Your task to perform on an android device: snooze an email in the gmail app Image 0: 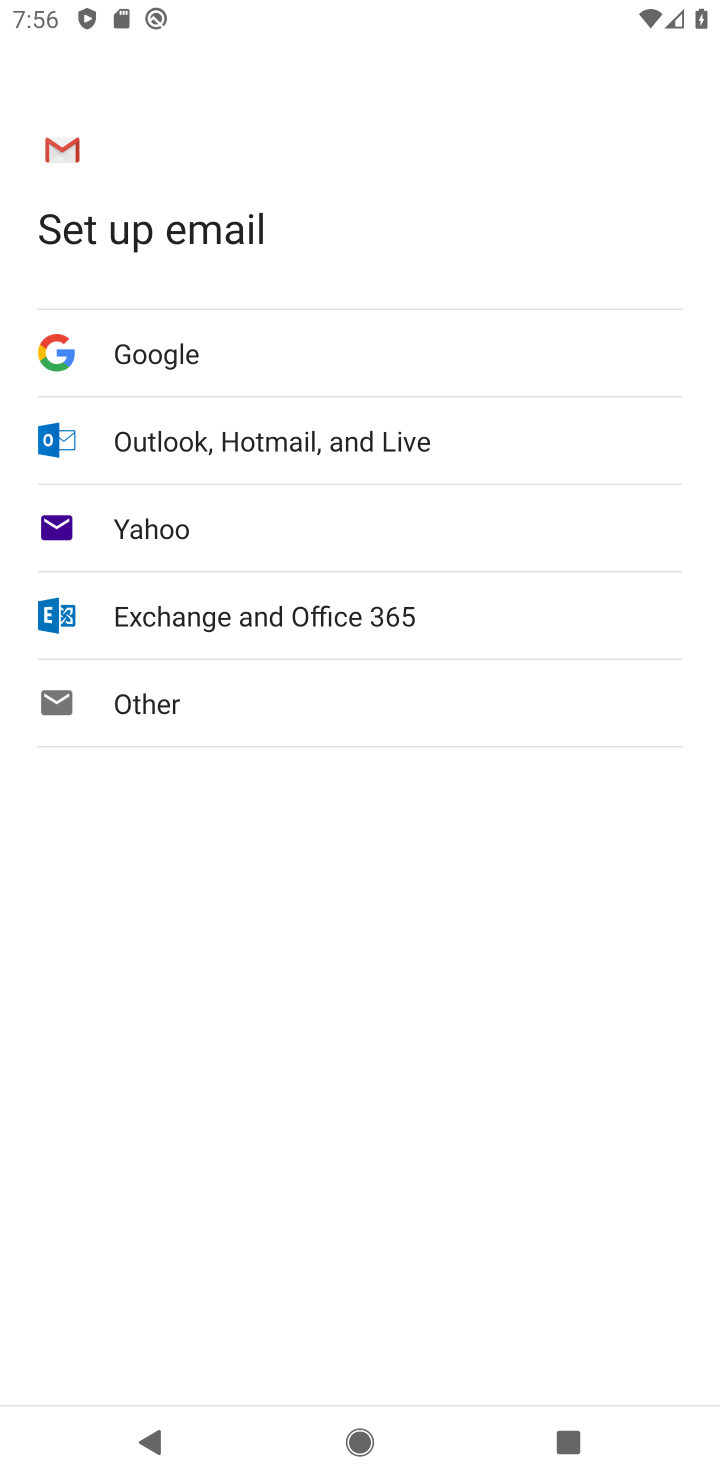
Step 0: press home button
Your task to perform on an android device: snooze an email in the gmail app Image 1: 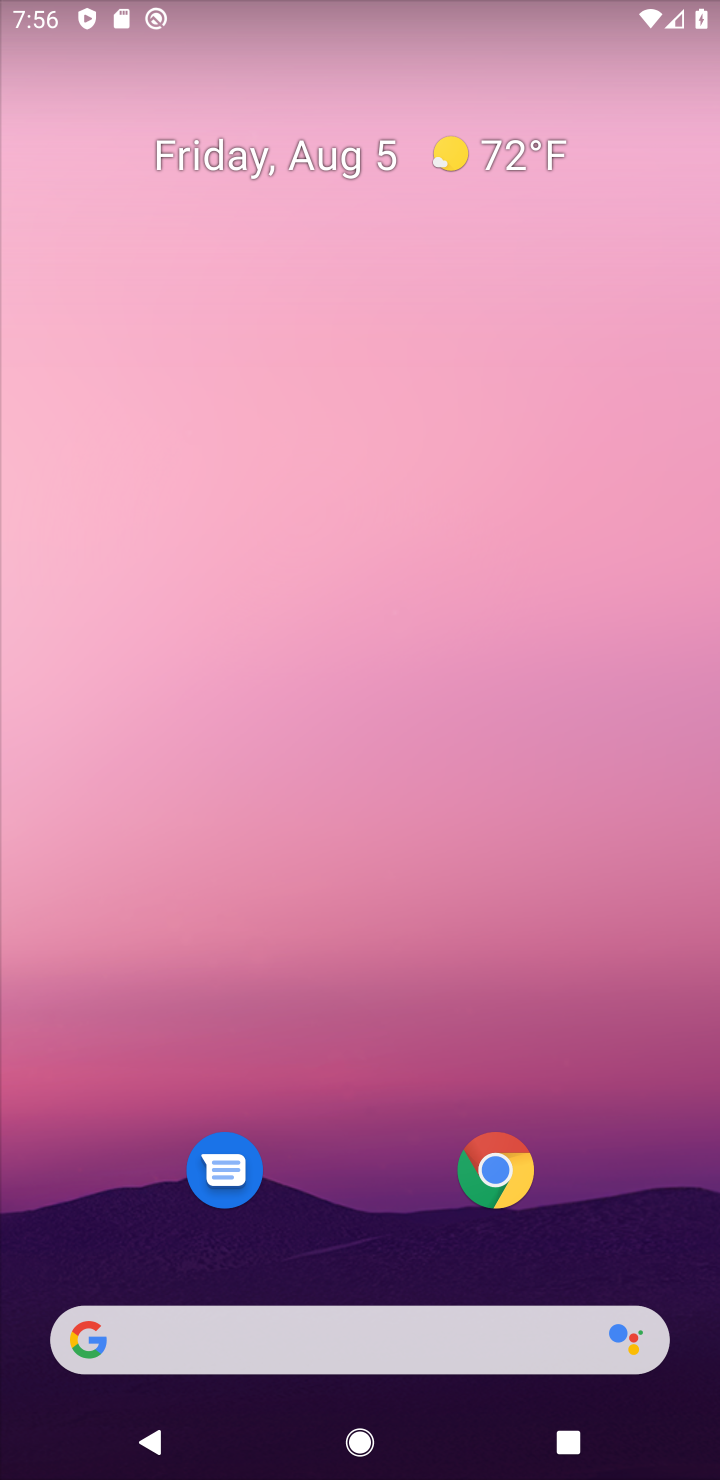
Step 1: click (711, 1042)
Your task to perform on an android device: snooze an email in the gmail app Image 2: 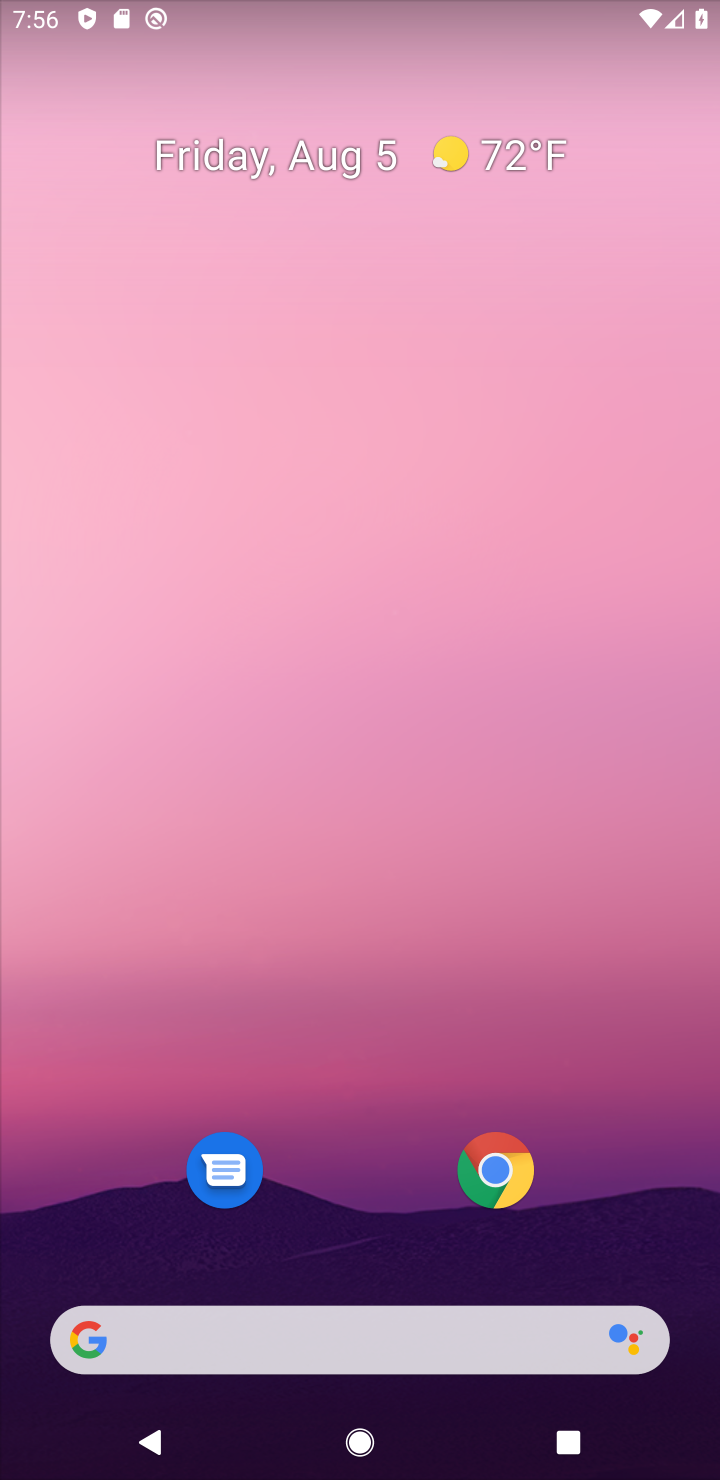
Step 2: drag from (615, 1248) to (569, 274)
Your task to perform on an android device: snooze an email in the gmail app Image 3: 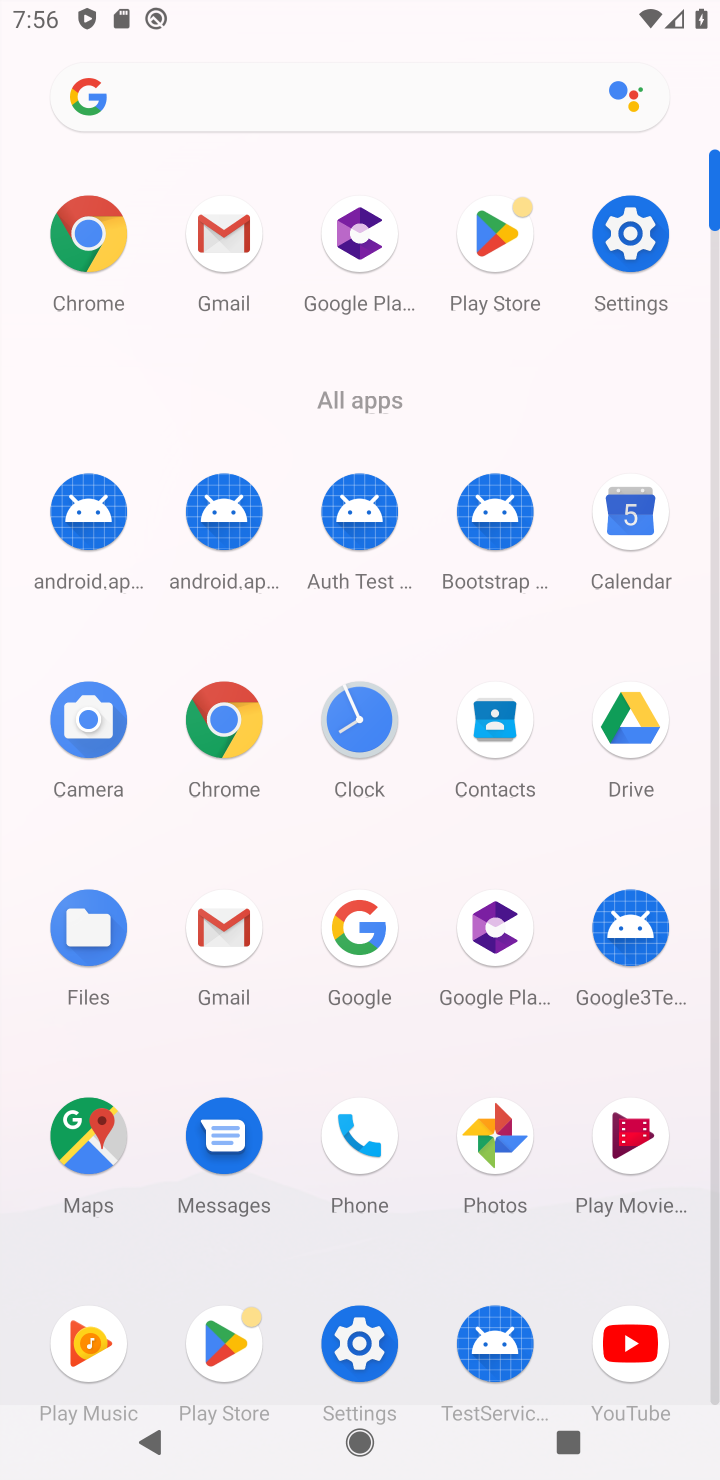
Step 3: click (217, 936)
Your task to perform on an android device: snooze an email in the gmail app Image 4: 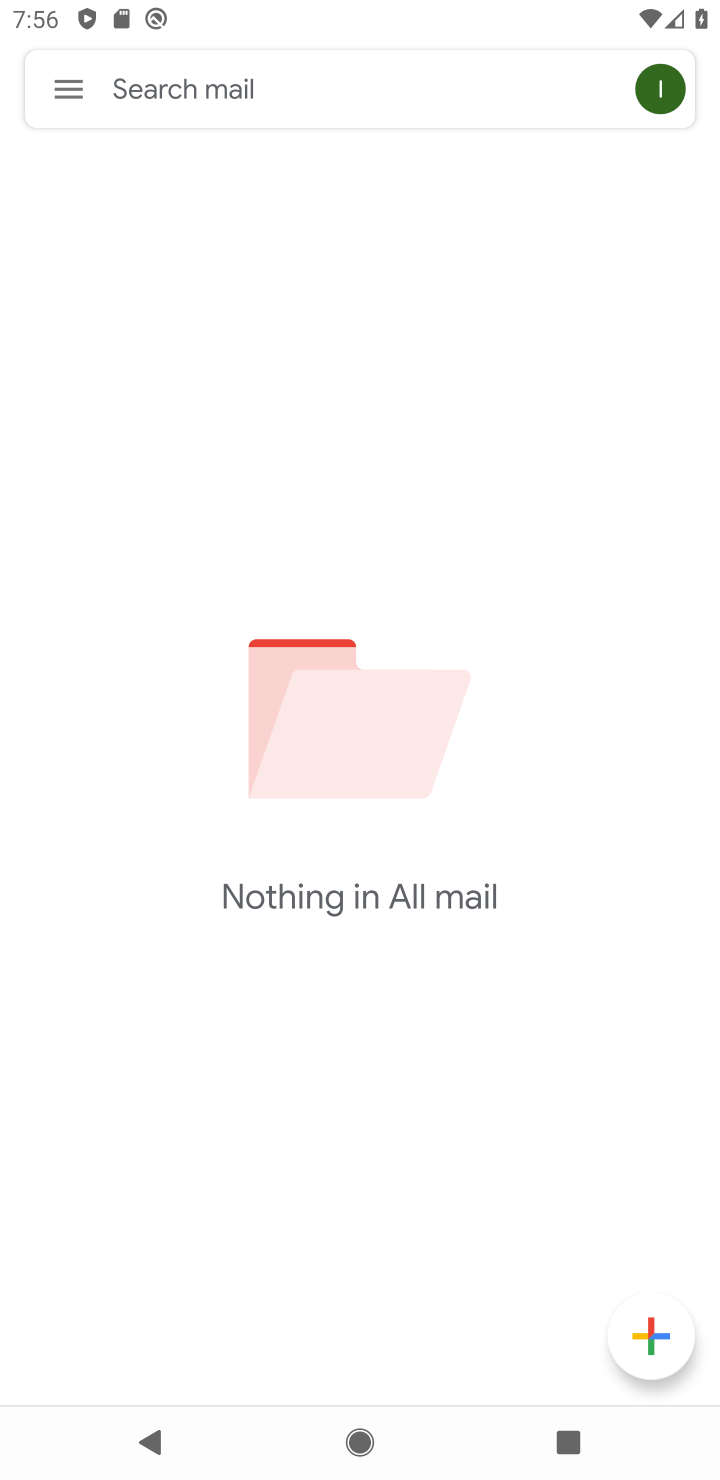
Step 4: click (59, 94)
Your task to perform on an android device: snooze an email in the gmail app Image 5: 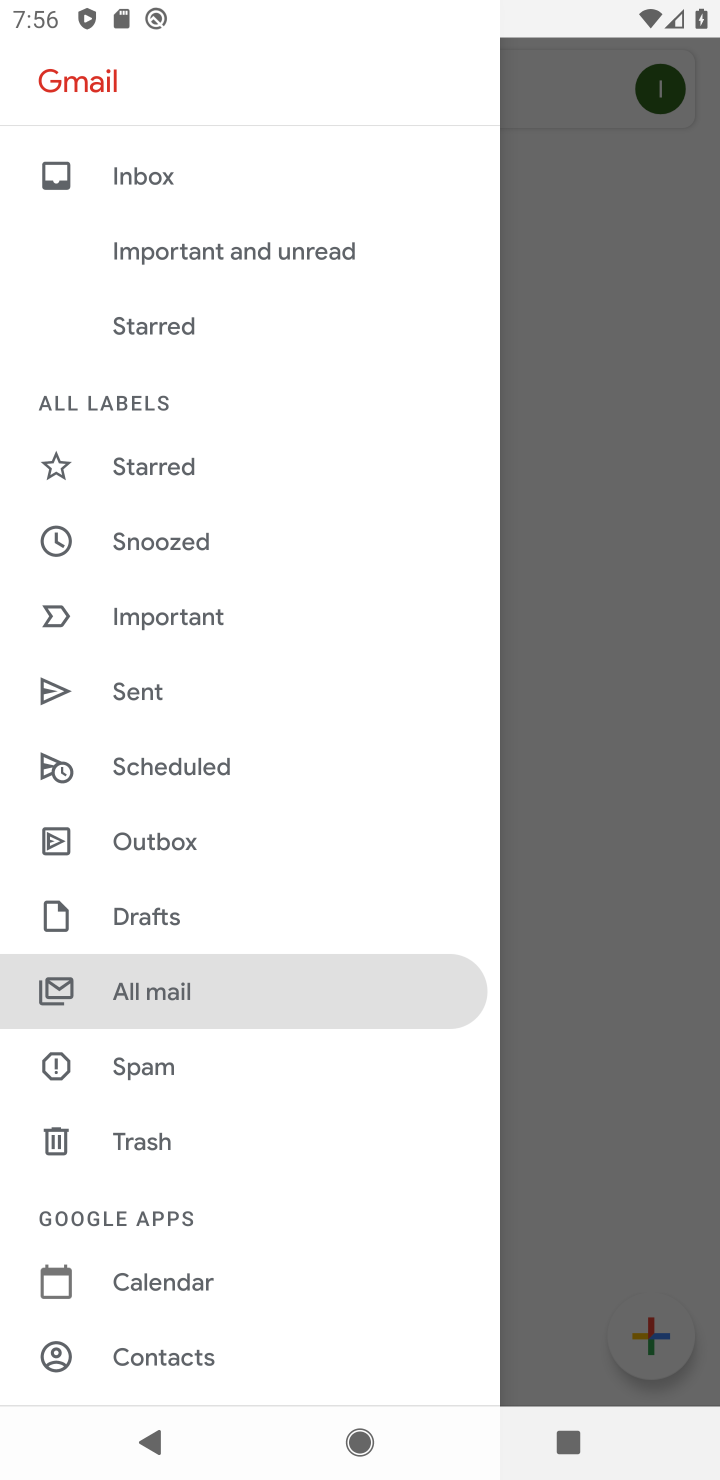
Step 5: click (148, 1008)
Your task to perform on an android device: snooze an email in the gmail app Image 6: 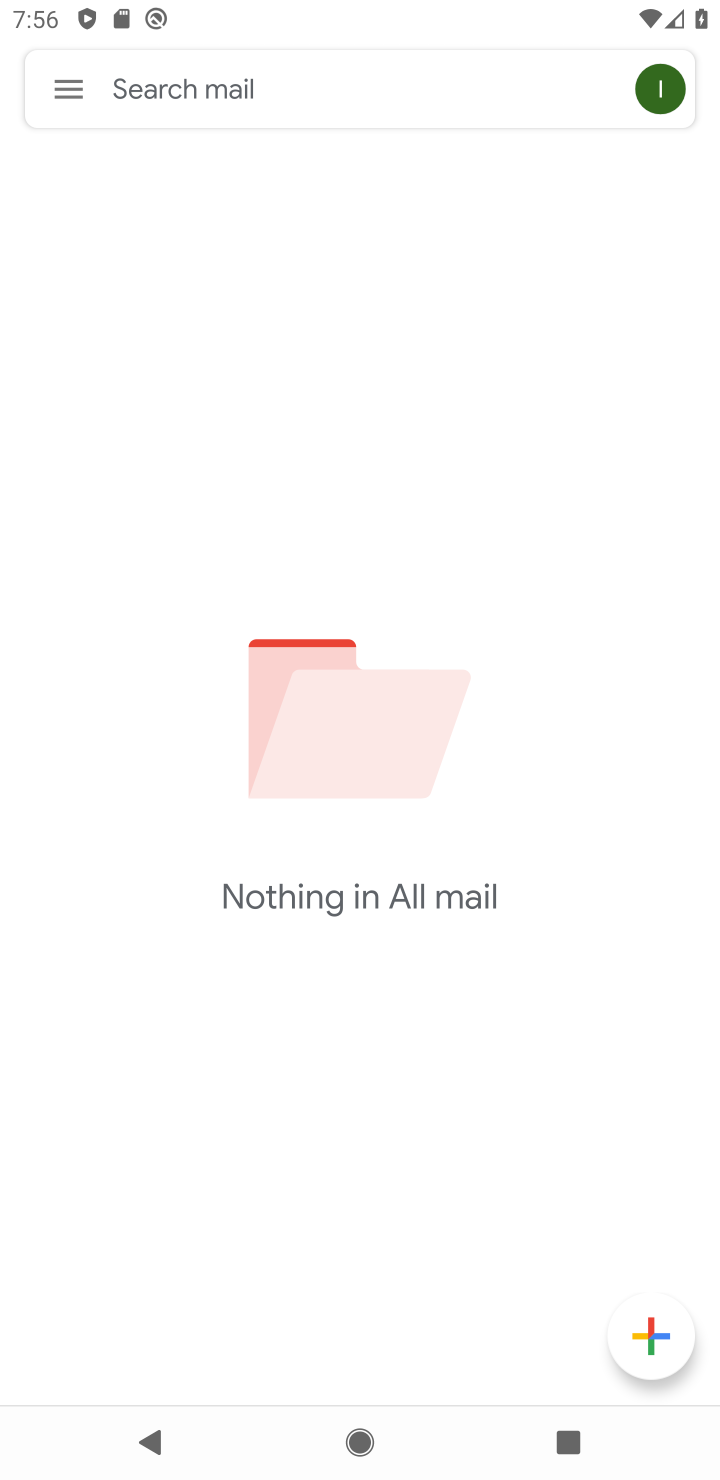
Step 6: task complete